Your task to perform on an android device: Go to Wikipedia Image 0: 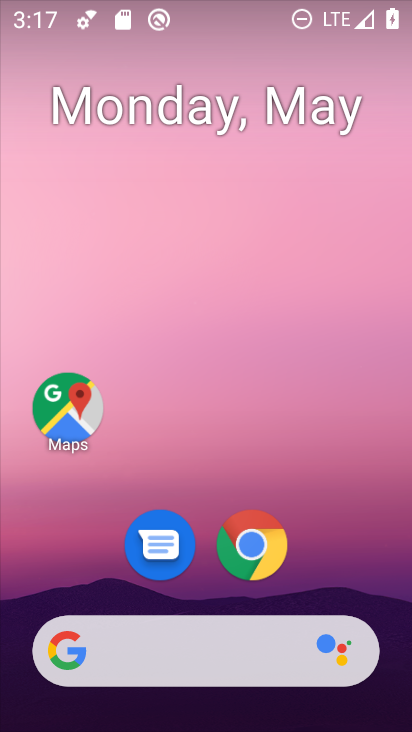
Step 0: click (256, 558)
Your task to perform on an android device: Go to Wikipedia Image 1: 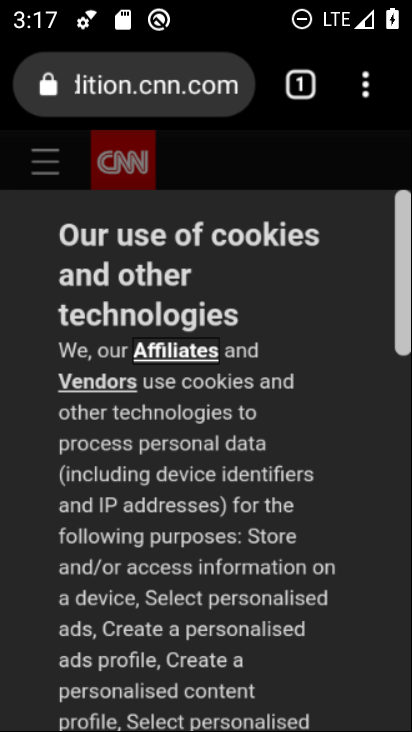
Step 1: click (103, 73)
Your task to perform on an android device: Go to Wikipedia Image 2: 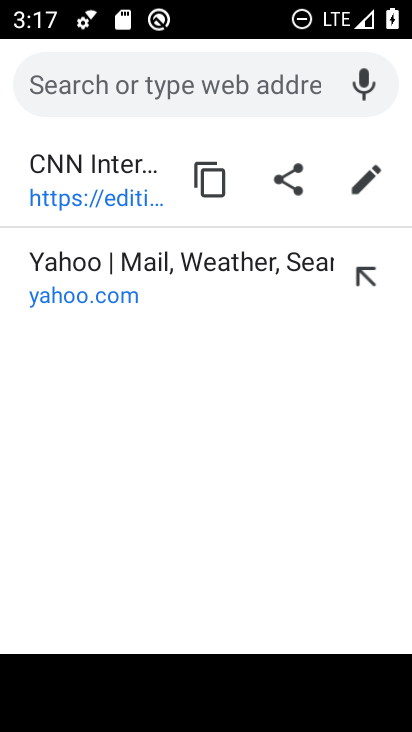
Step 2: type "wikipedia"
Your task to perform on an android device: Go to Wikipedia Image 3: 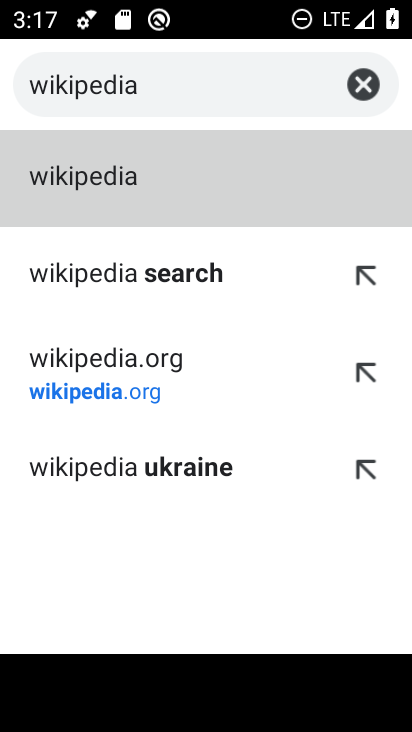
Step 3: click (144, 174)
Your task to perform on an android device: Go to Wikipedia Image 4: 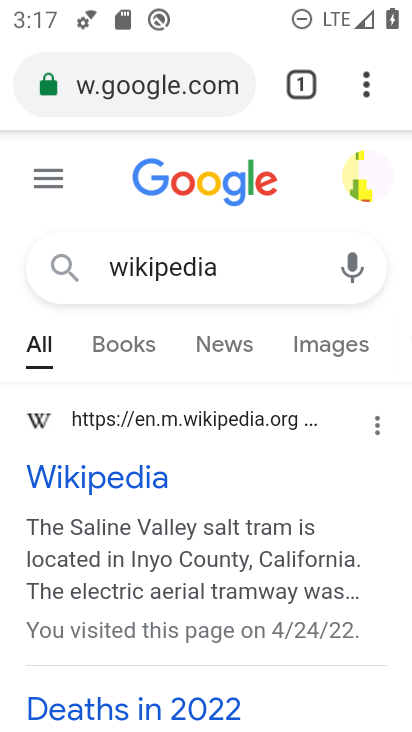
Step 4: click (113, 480)
Your task to perform on an android device: Go to Wikipedia Image 5: 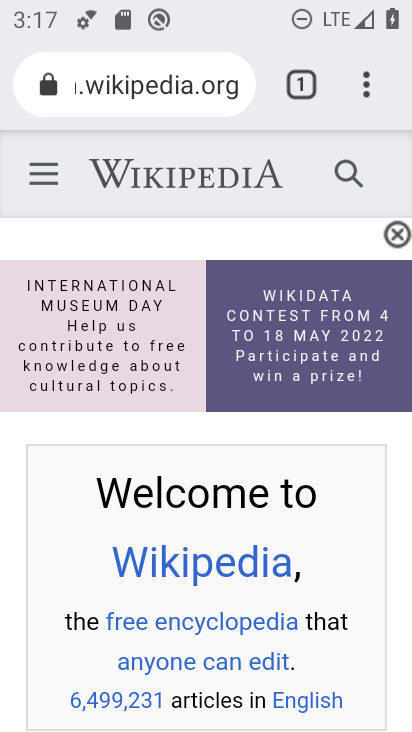
Step 5: task complete